Your task to perform on an android device: Add "macbook pro" to the cart on bestbuy, then select checkout. Image 0: 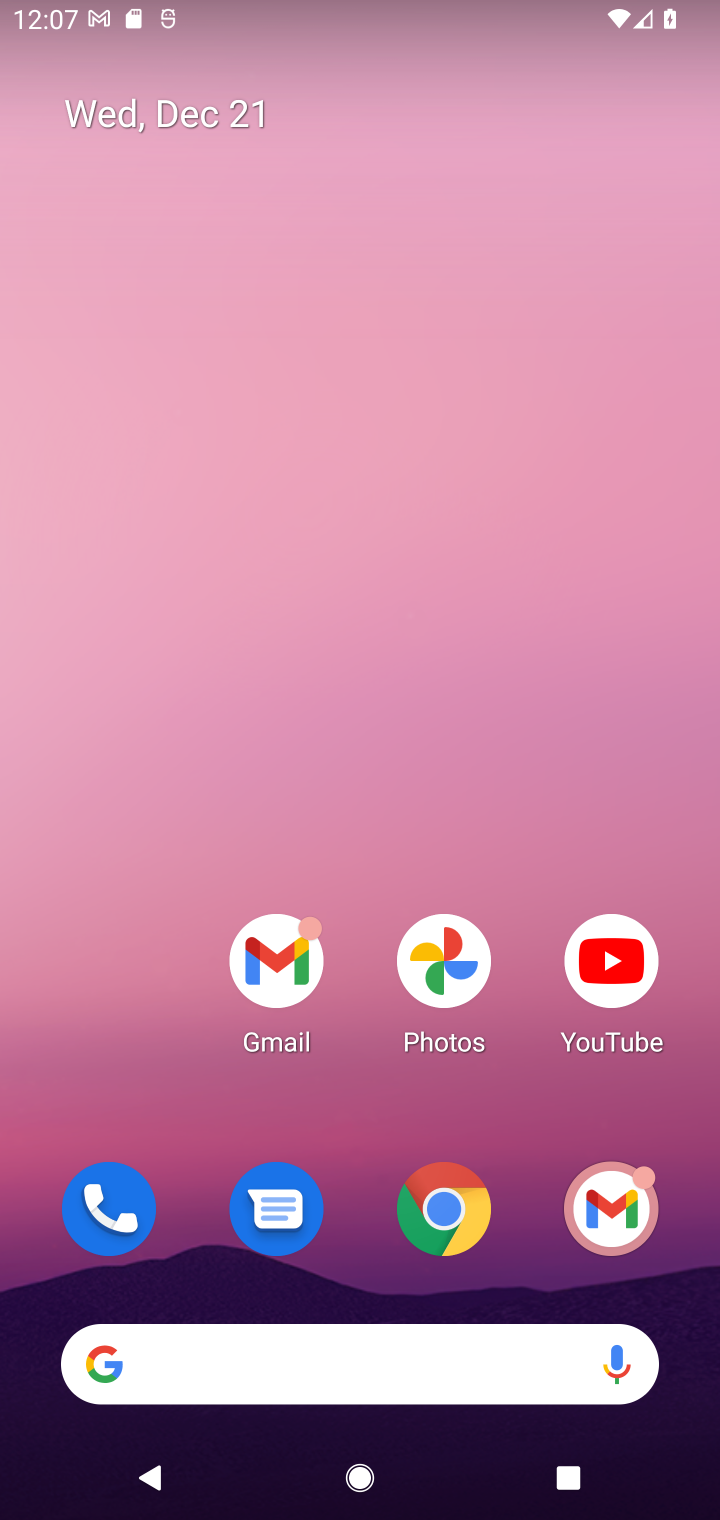
Step 0: click (450, 1214)
Your task to perform on an android device: Add "macbook pro" to the cart on bestbuy, then select checkout. Image 1: 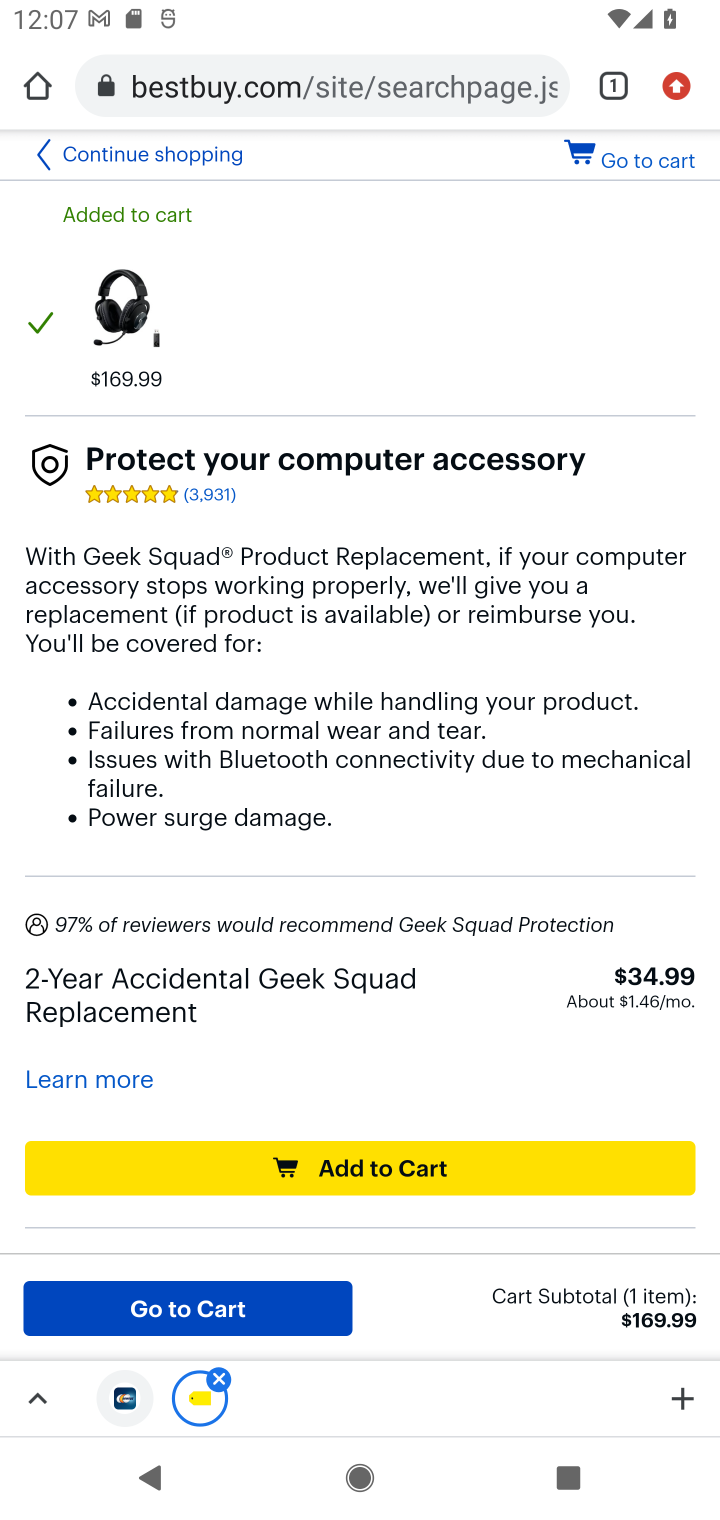
Step 1: press back button
Your task to perform on an android device: Add "macbook pro" to the cart on bestbuy, then select checkout. Image 2: 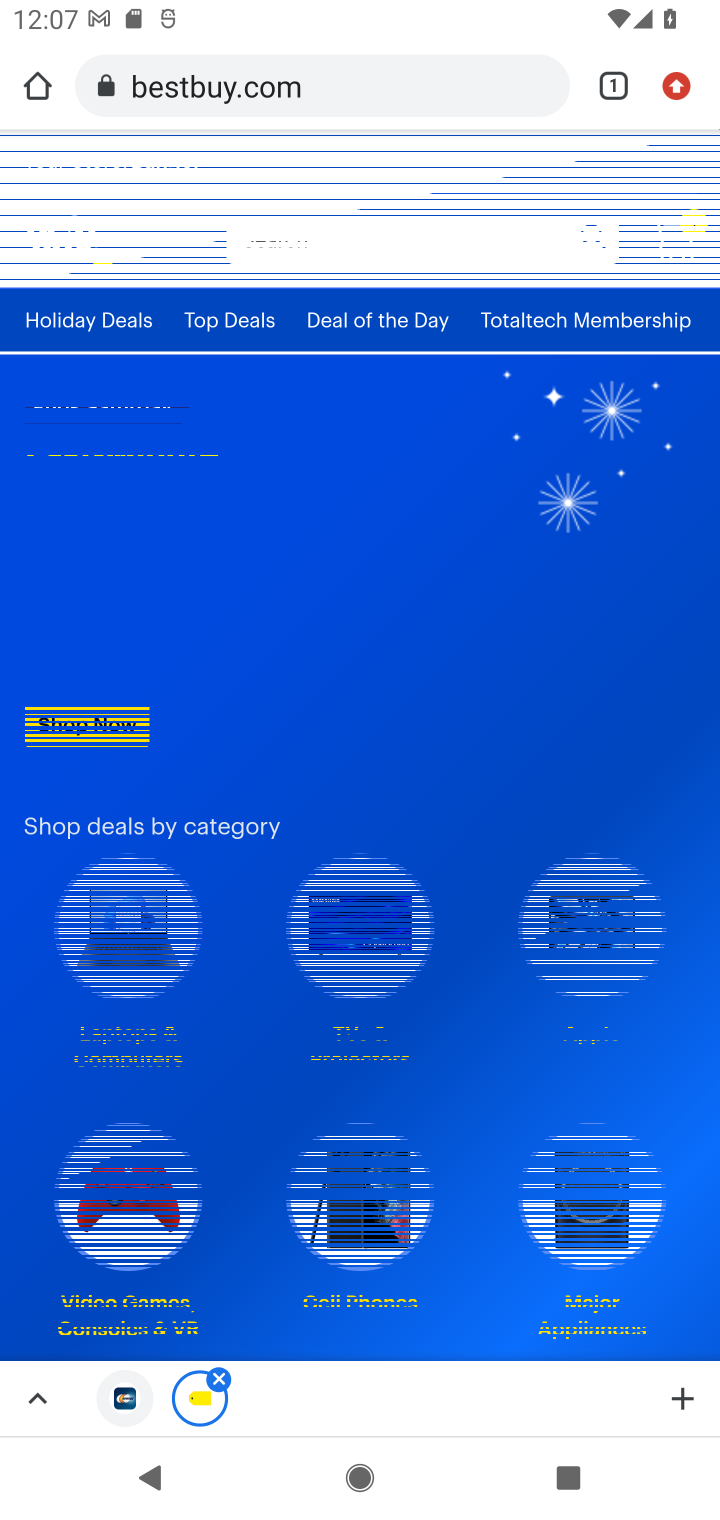
Step 2: click (299, 251)
Your task to perform on an android device: Add "macbook pro" to the cart on bestbuy, then select checkout. Image 3: 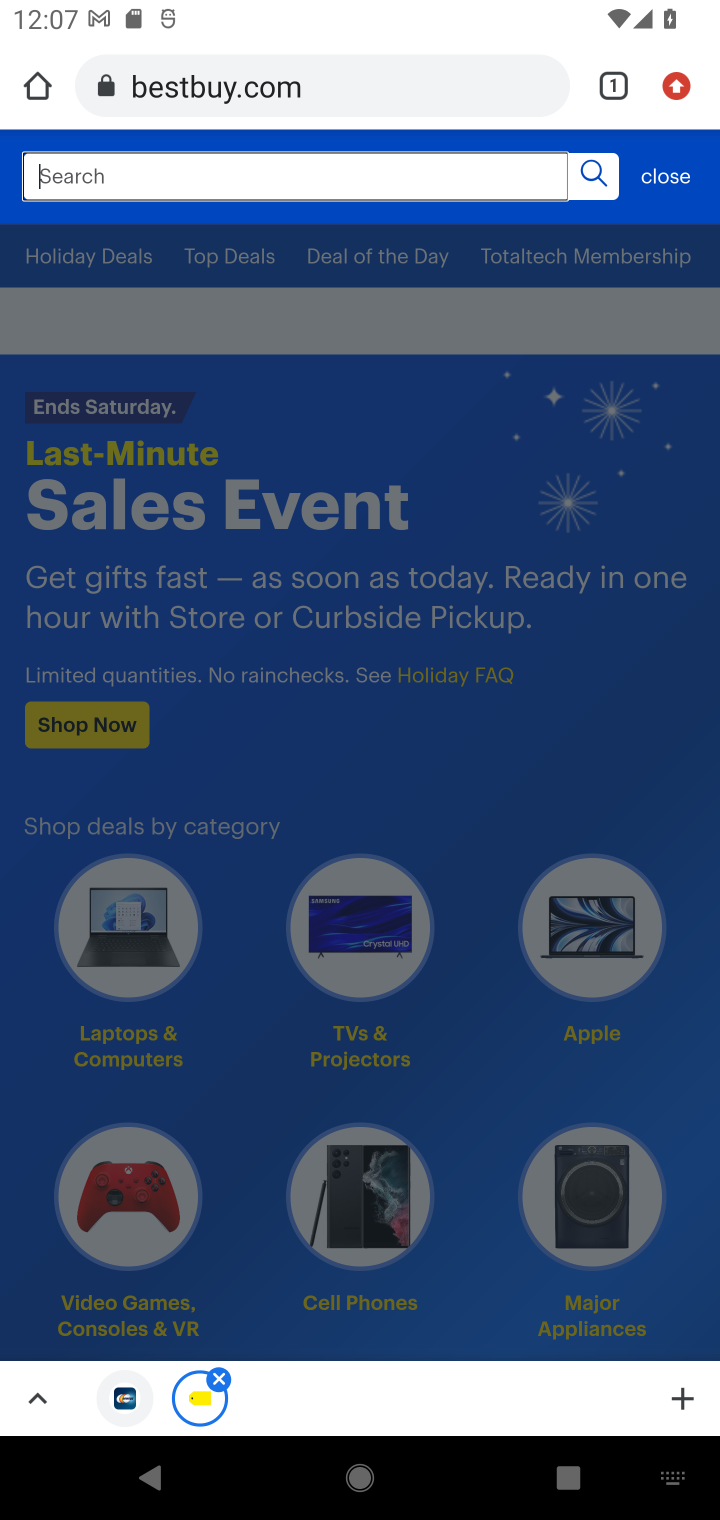
Step 3: click (141, 185)
Your task to perform on an android device: Add "macbook pro" to the cart on bestbuy, then select checkout. Image 4: 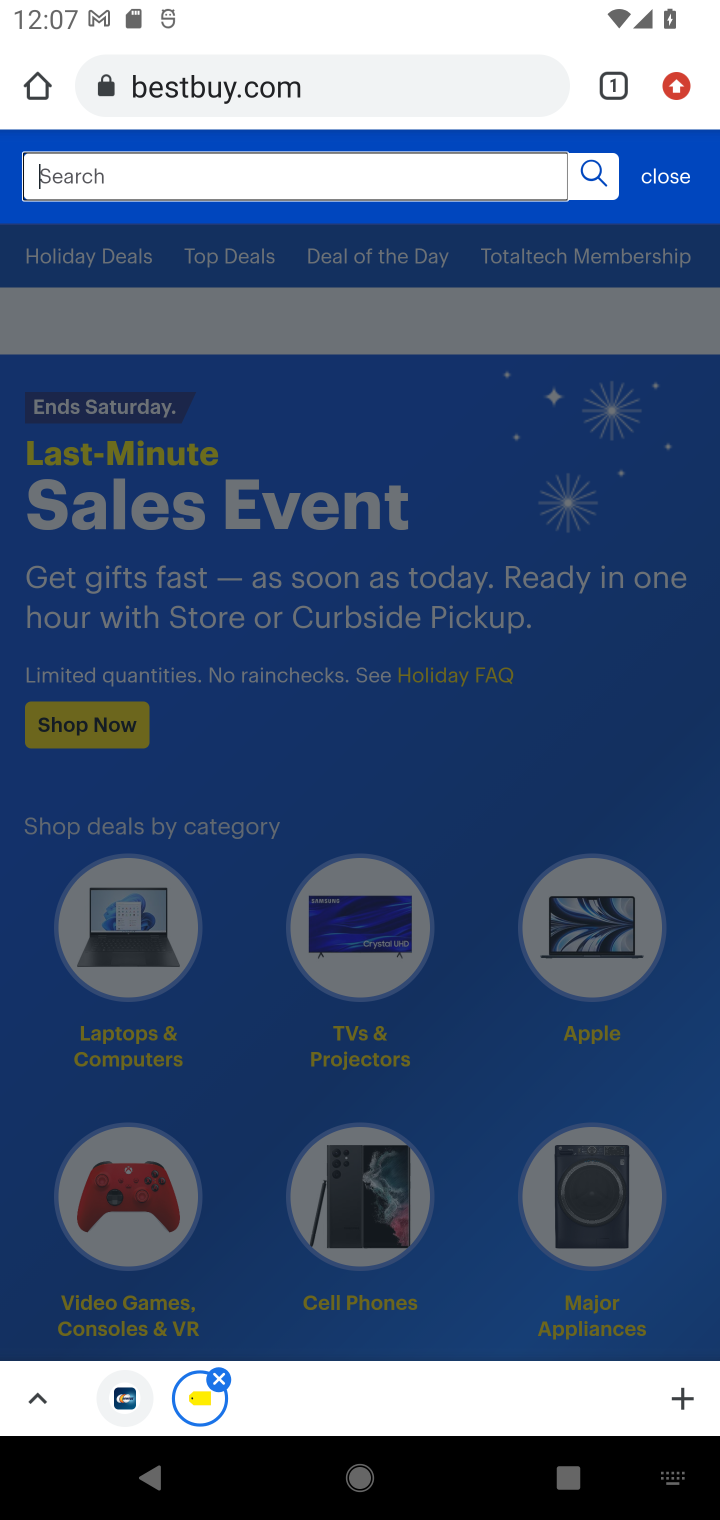
Step 4: type "macbook pro"
Your task to perform on an android device: Add "macbook pro" to the cart on bestbuy, then select checkout. Image 5: 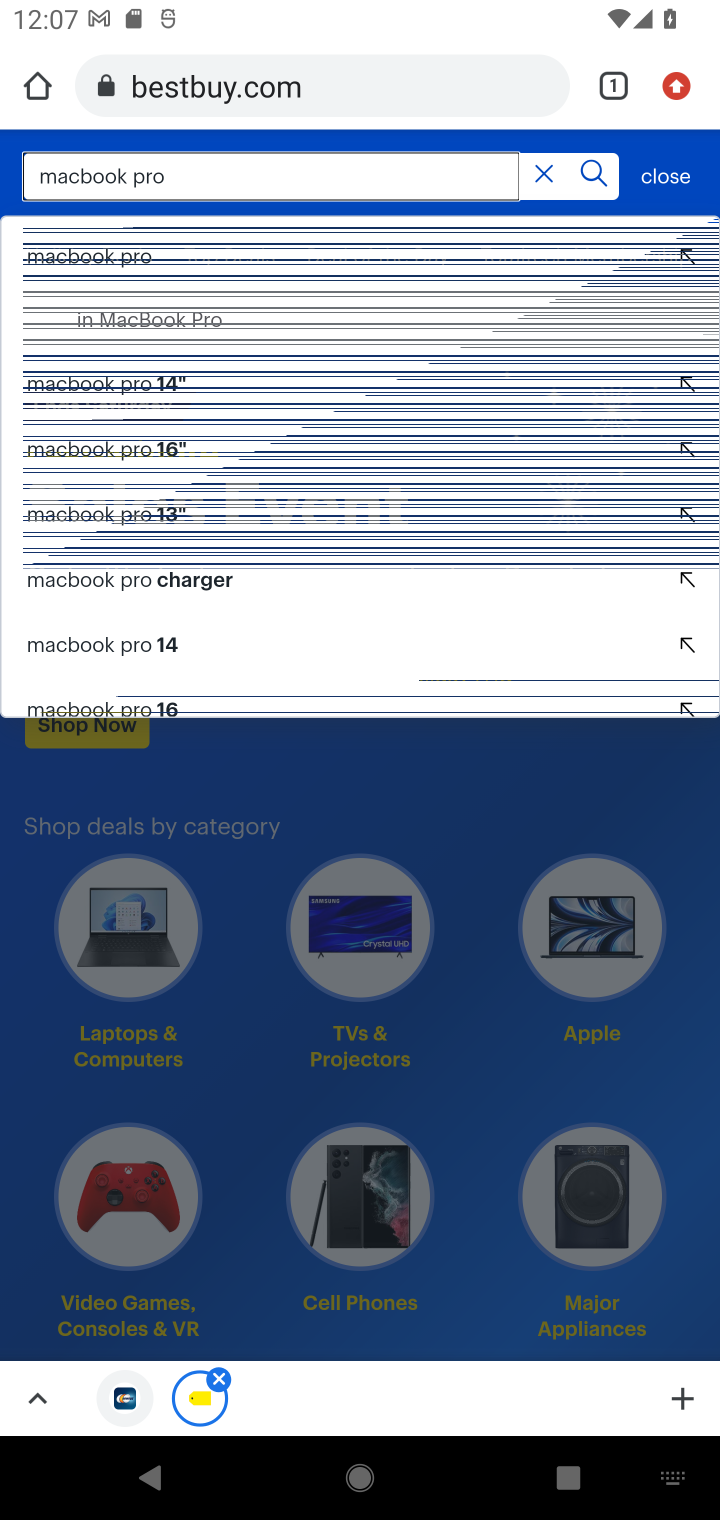
Step 5: click (108, 258)
Your task to perform on an android device: Add "macbook pro" to the cart on bestbuy, then select checkout. Image 6: 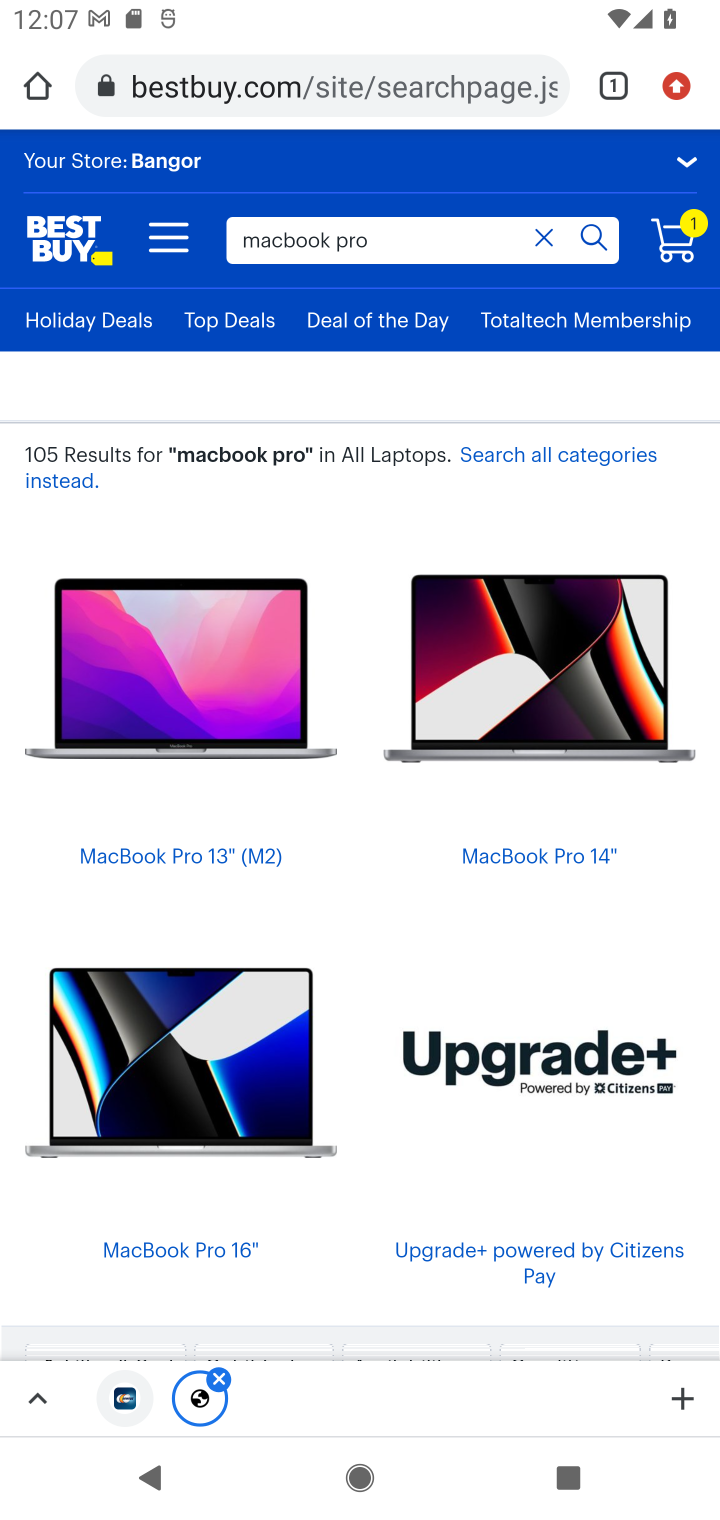
Step 6: drag from (281, 1072) to (317, 482)
Your task to perform on an android device: Add "macbook pro" to the cart on bestbuy, then select checkout. Image 7: 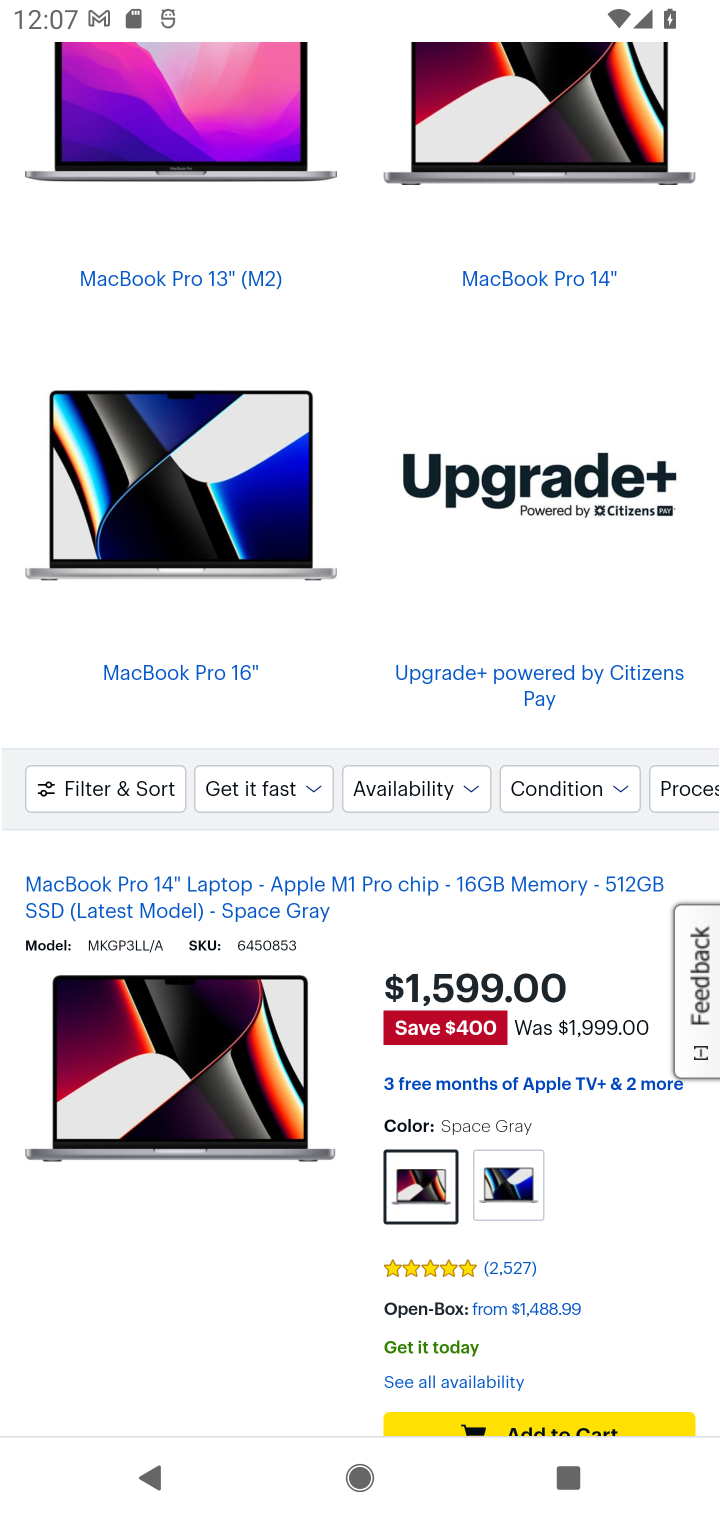
Step 7: drag from (278, 1198) to (262, 776)
Your task to perform on an android device: Add "macbook pro" to the cart on bestbuy, then select checkout. Image 8: 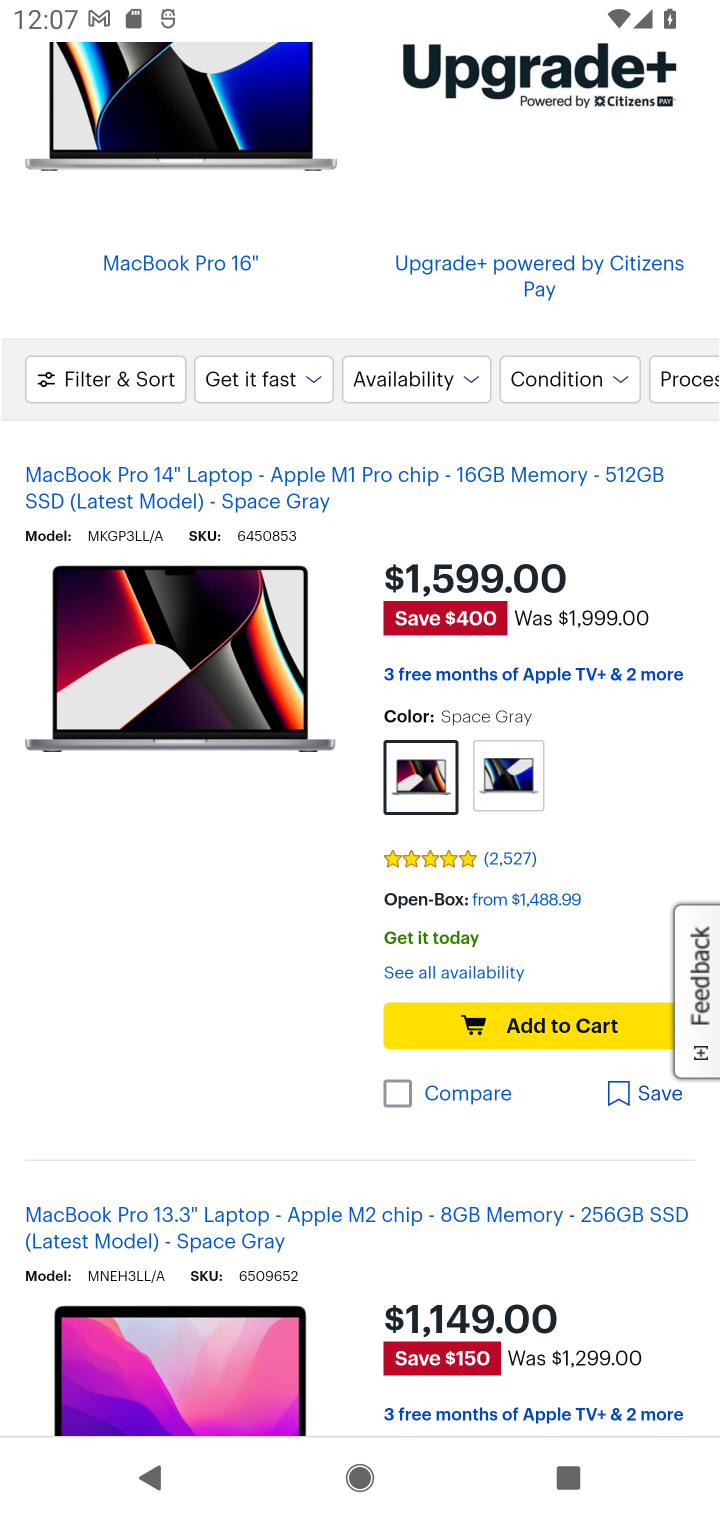
Step 8: click (553, 1025)
Your task to perform on an android device: Add "macbook pro" to the cart on bestbuy, then select checkout. Image 9: 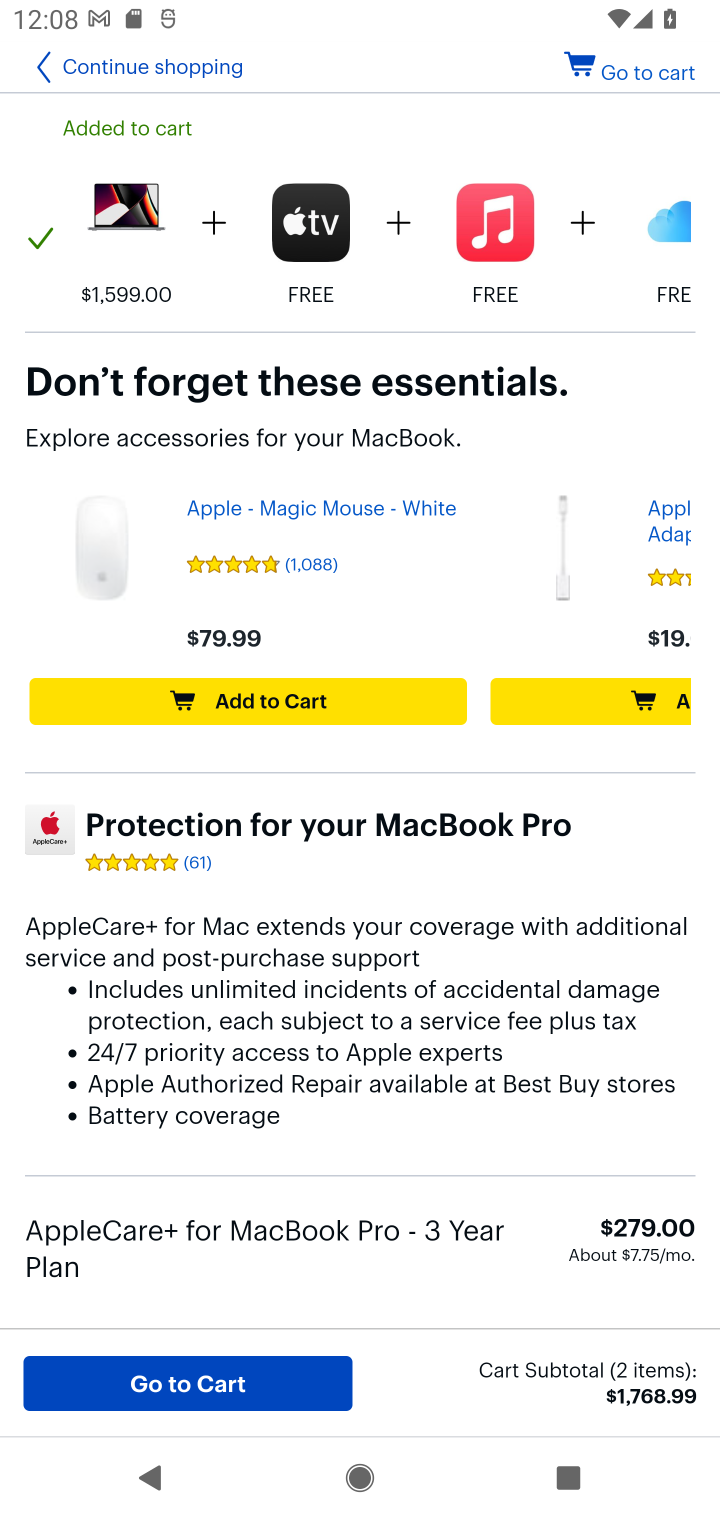
Step 9: click (640, 79)
Your task to perform on an android device: Add "macbook pro" to the cart on bestbuy, then select checkout. Image 10: 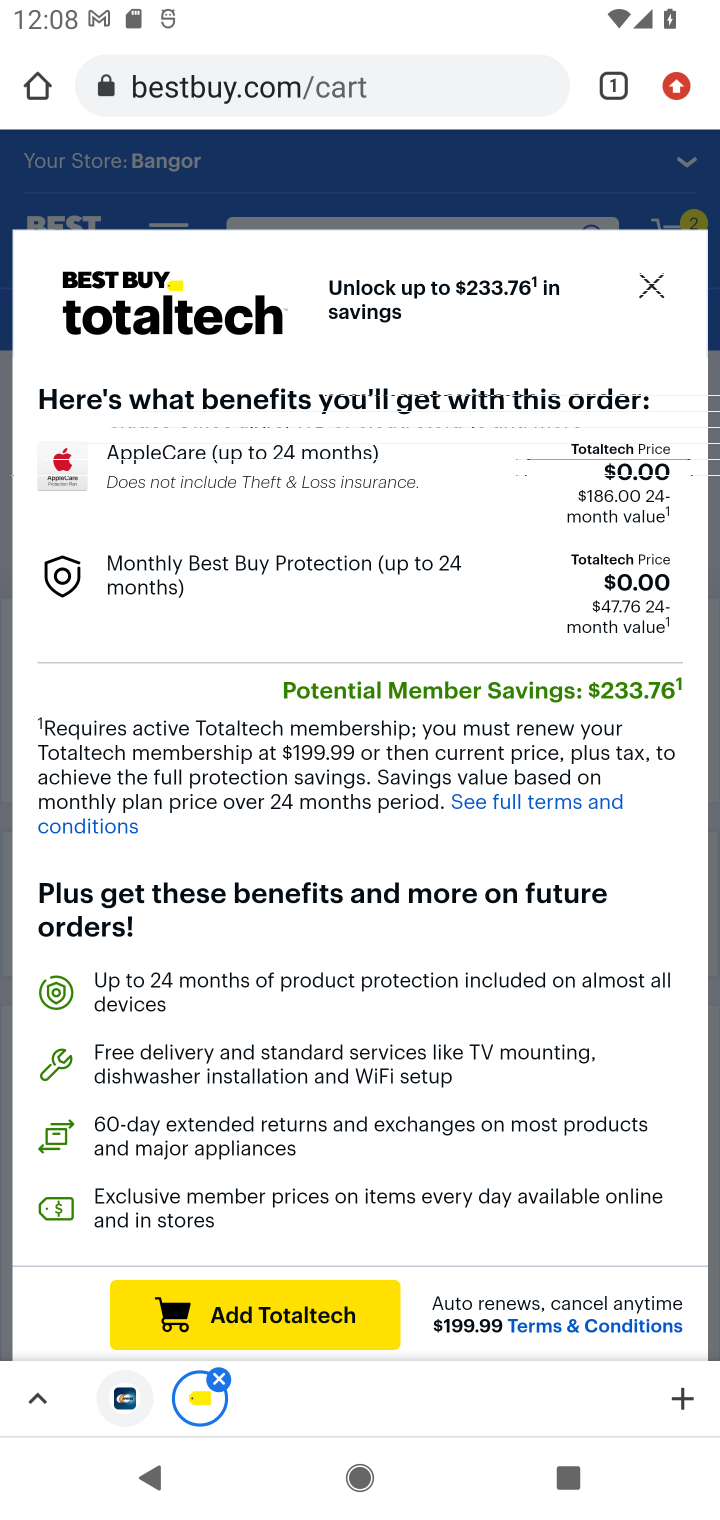
Step 10: click (662, 289)
Your task to perform on an android device: Add "macbook pro" to the cart on bestbuy, then select checkout. Image 11: 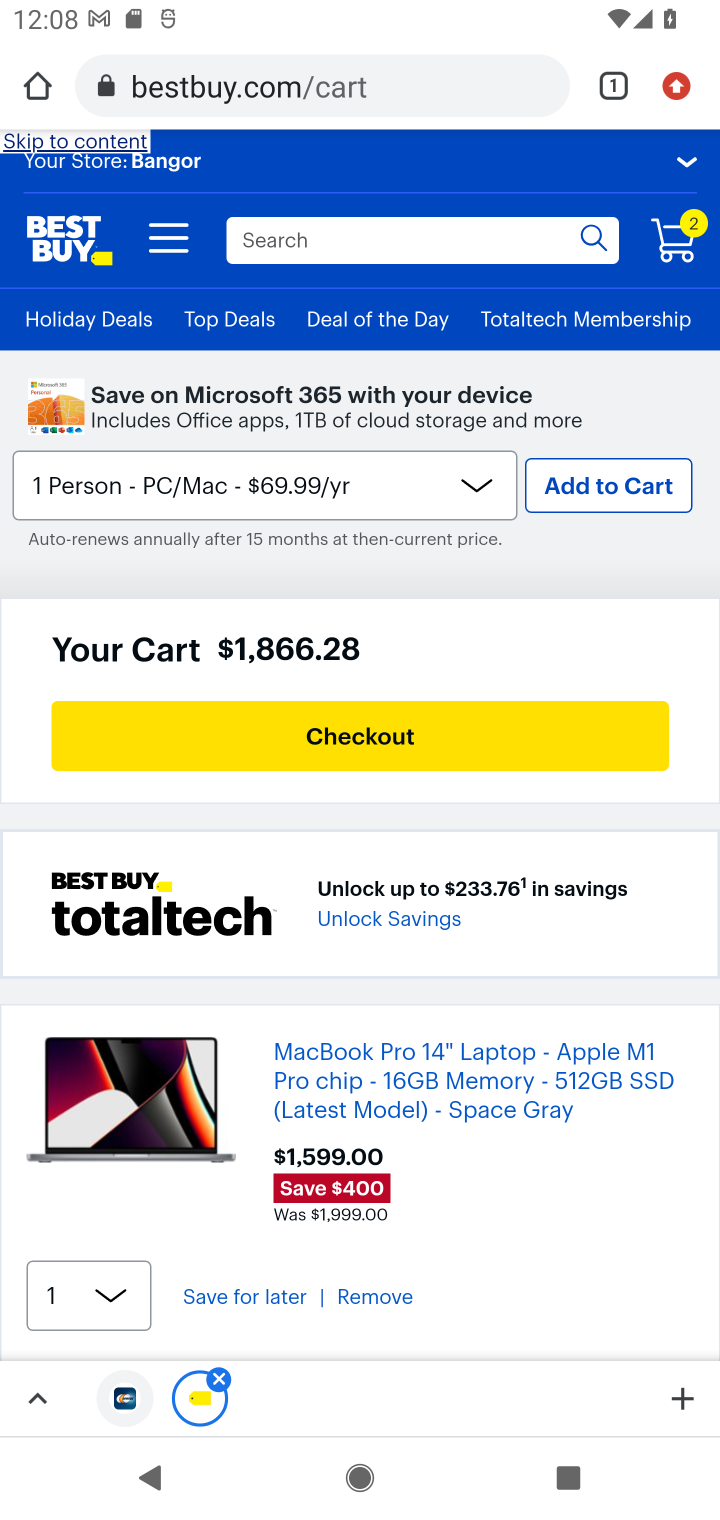
Step 11: click (333, 745)
Your task to perform on an android device: Add "macbook pro" to the cart on bestbuy, then select checkout. Image 12: 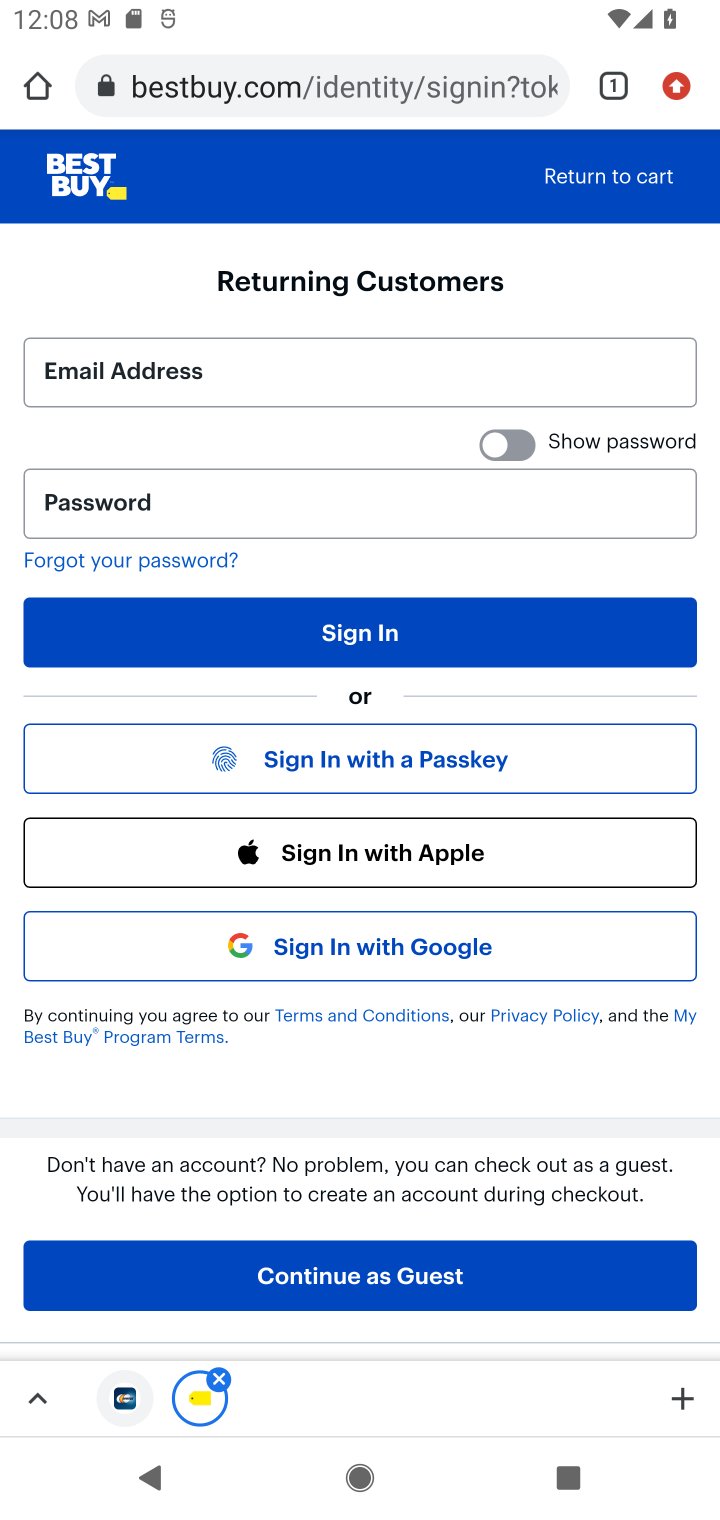
Step 12: task complete